Your task to perform on an android device: change keyboard looks Image 0: 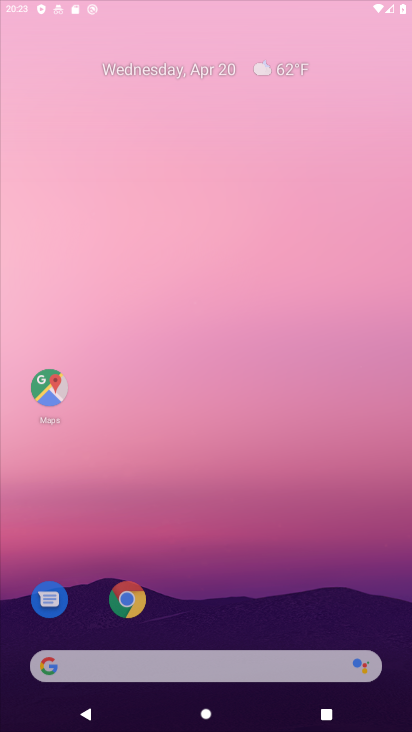
Step 0: click (139, 609)
Your task to perform on an android device: change keyboard looks Image 1: 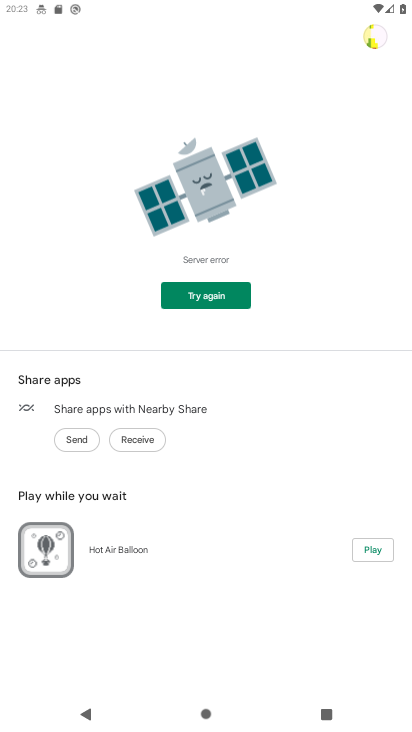
Step 1: press home button
Your task to perform on an android device: change keyboard looks Image 2: 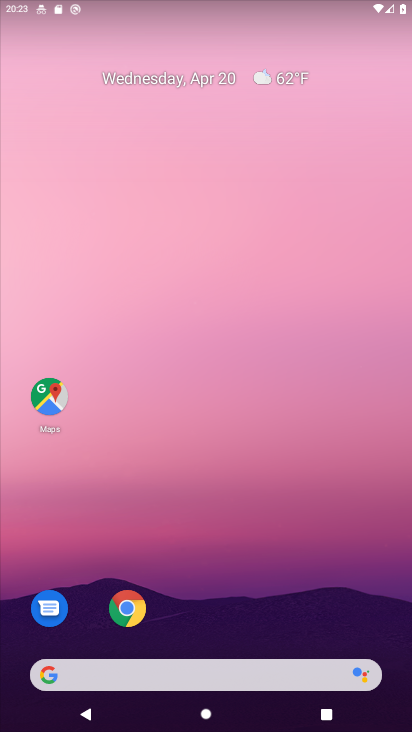
Step 2: drag from (297, 560) to (292, 22)
Your task to perform on an android device: change keyboard looks Image 3: 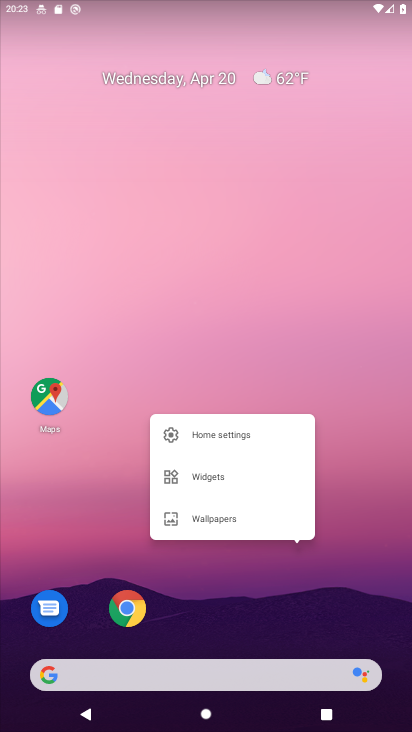
Step 3: click (164, 285)
Your task to perform on an android device: change keyboard looks Image 4: 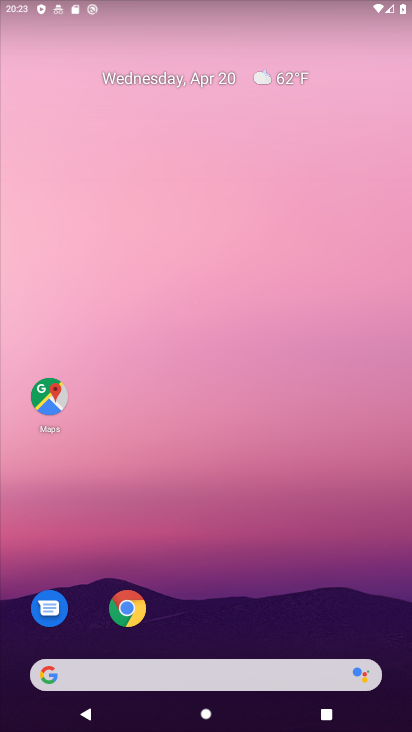
Step 4: drag from (268, 570) to (277, 41)
Your task to perform on an android device: change keyboard looks Image 5: 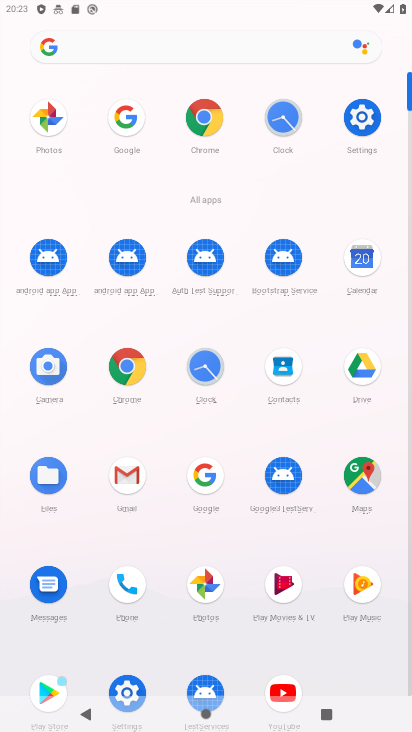
Step 5: click (366, 118)
Your task to perform on an android device: change keyboard looks Image 6: 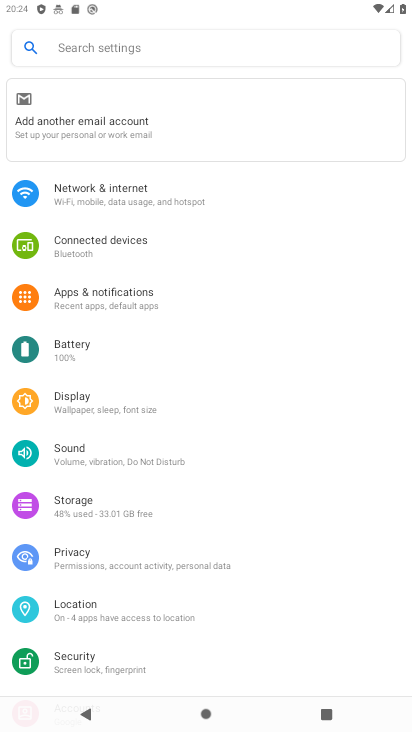
Step 6: drag from (162, 643) to (199, 300)
Your task to perform on an android device: change keyboard looks Image 7: 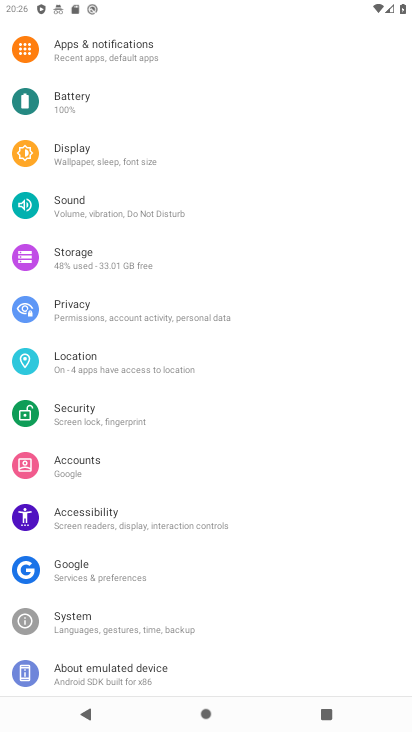
Step 7: drag from (57, 632) to (30, 612)
Your task to perform on an android device: change keyboard looks Image 8: 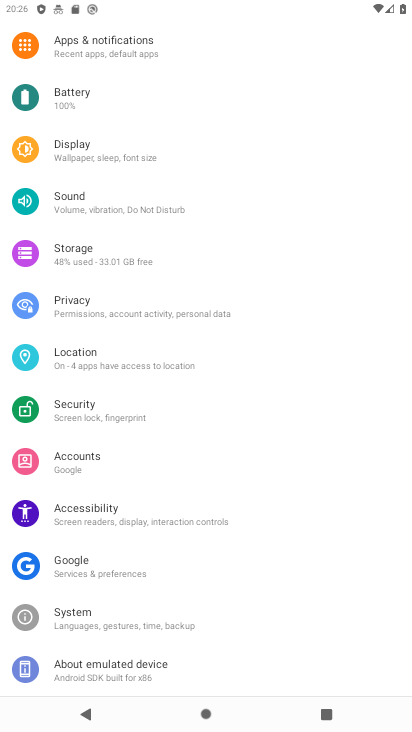
Step 8: click (88, 631)
Your task to perform on an android device: change keyboard looks Image 9: 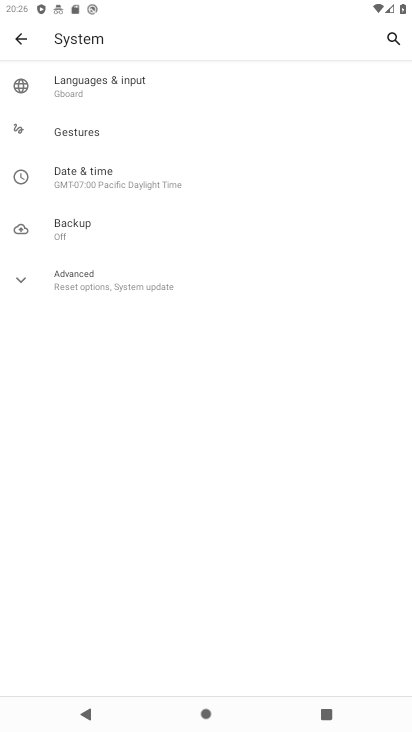
Step 9: click (121, 90)
Your task to perform on an android device: change keyboard looks Image 10: 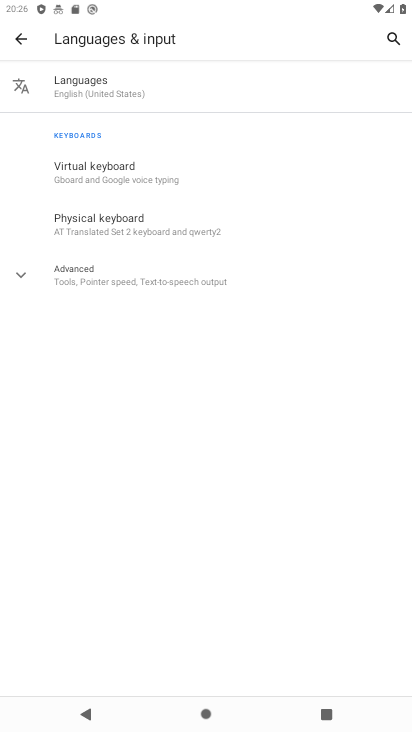
Step 10: click (124, 177)
Your task to perform on an android device: change keyboard looks Image 11: 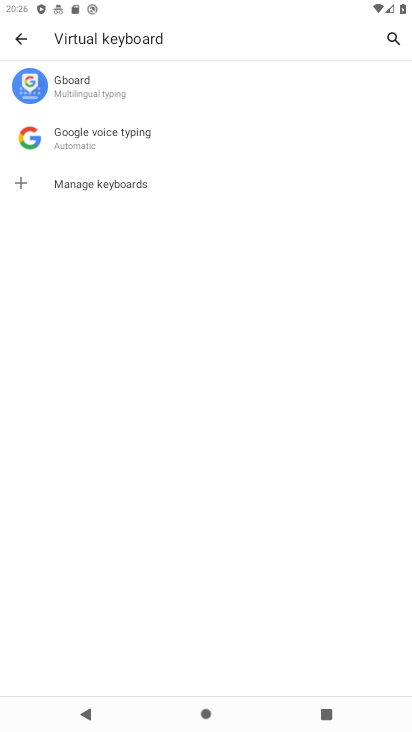
Step 11: click (73, 82)
Your task to perform on an android device: change keyboard looks Image 12: 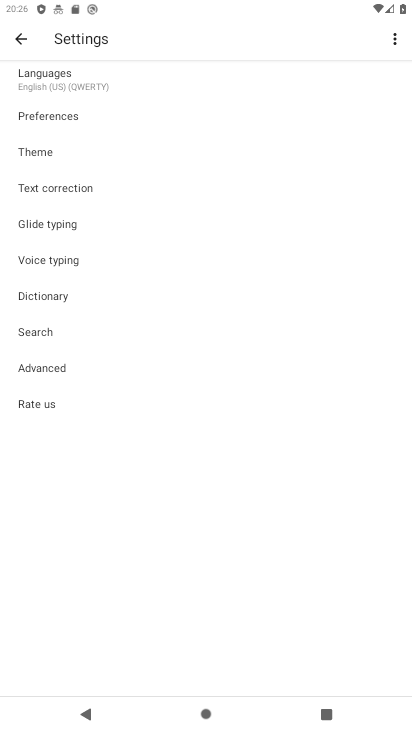
Step 12: click (65, 143)
Your task to perform on an android device: change keyboard looks Image 13: 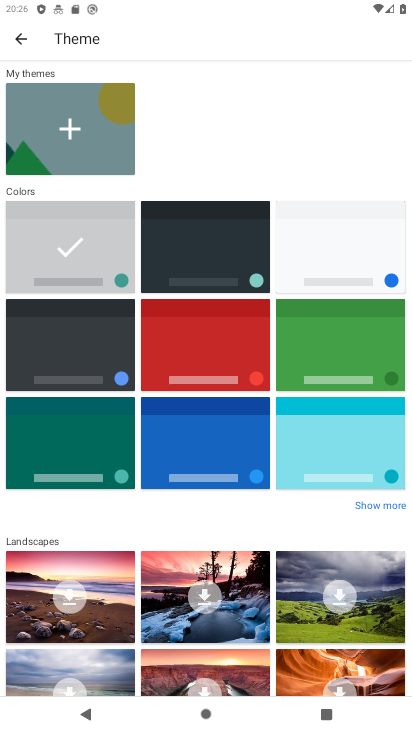
Step 13: click (58, 445)
Your task to perform on an android device: change keyboard looks Image 14: 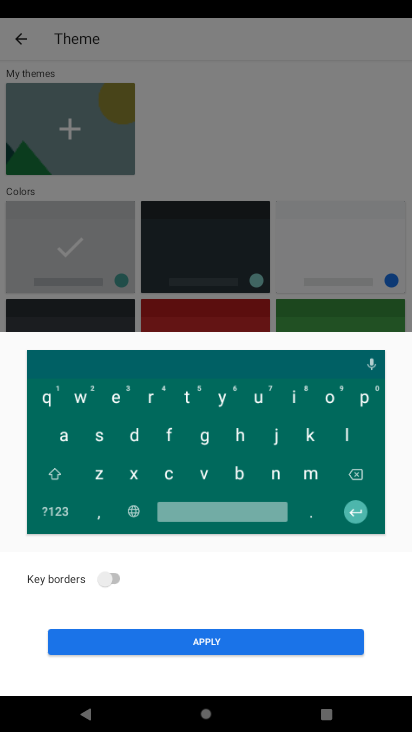
Step 14: click (239, 635)
Your task to perform on an android device: change keyboard looks Image 15: 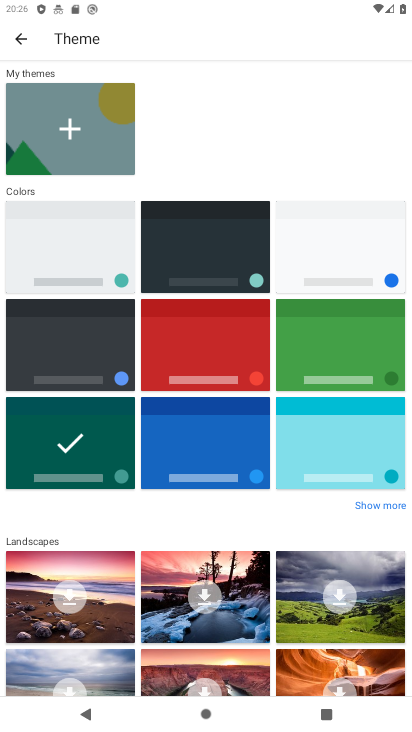
Step 15: task complete